Your task to perform on an android device: change your default location settings in chrome Image 0: 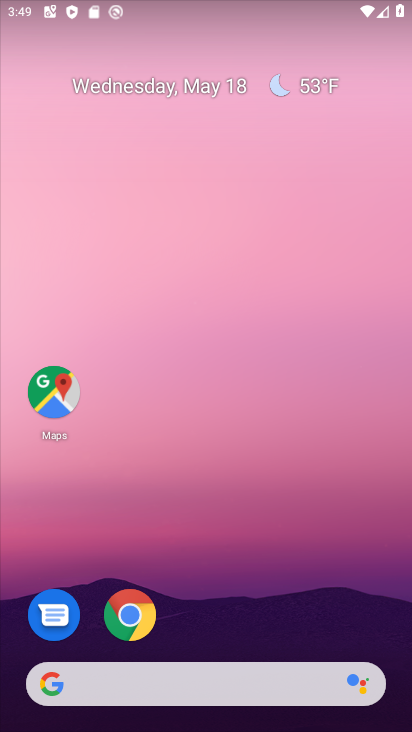
Step 0: click (122, 617)
Your task to perform on an android device: change your default location settings in chrome Image 1: 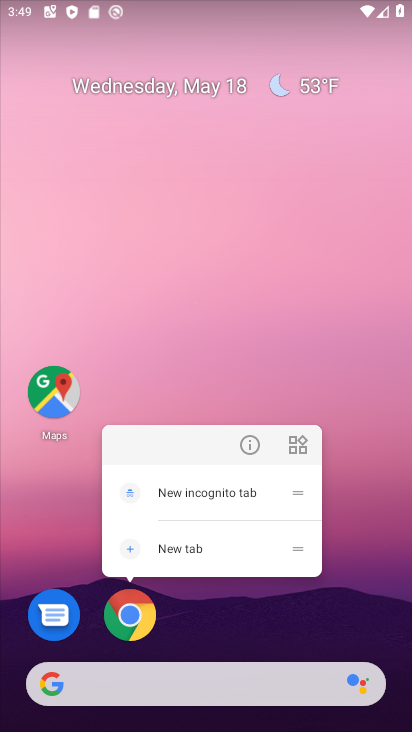
Step 1: click (125, 615)
Your task to perform on an android device: change your default location settings in chrome Image 2: 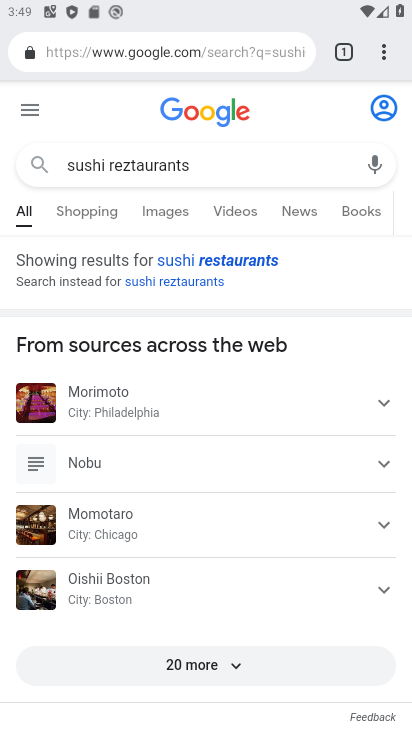
Step 2: drag from (390, 49) to (194, 577)
Your task to perform on an android device: change your default location settings in chrome Image 3: 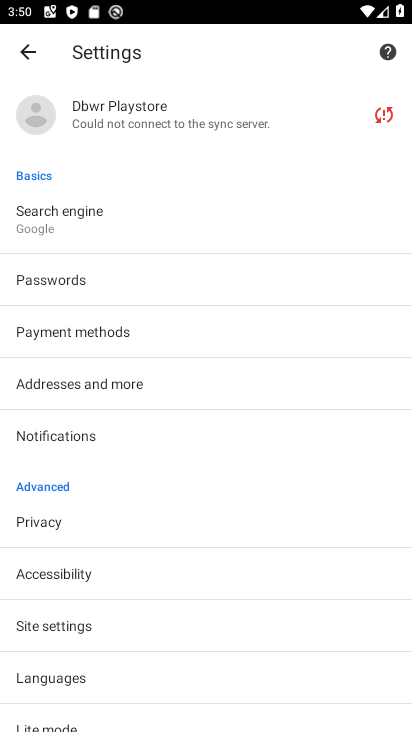
Step 3: drag from (177, 656) to (300, 368)
Your task to perform on an android device: change your default location settings in chrome Image 4: 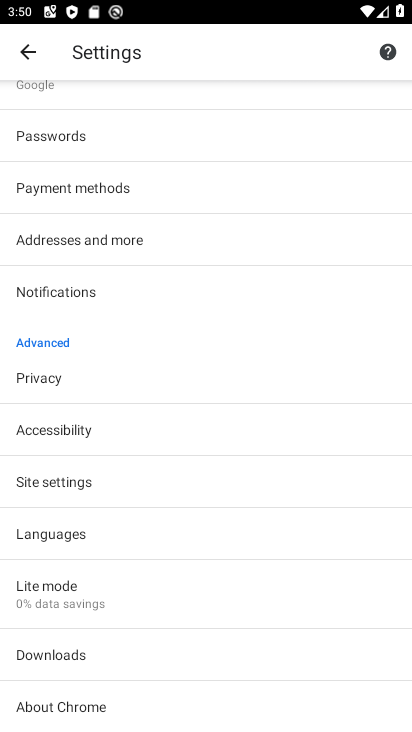
Step 4: click (100, 475)
Your task to perform on an android device: change your default location settings in chrome Image 5: 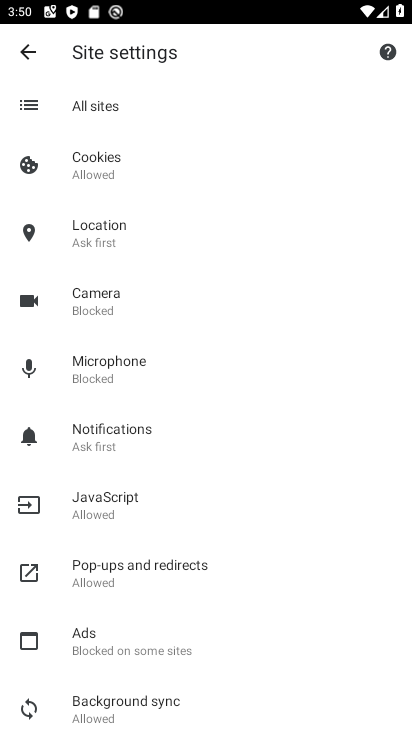
Step 5: drag from (139, 603) to (244, 499)
Your task to perform on an android device: change your default location settings in chrome Image 6: 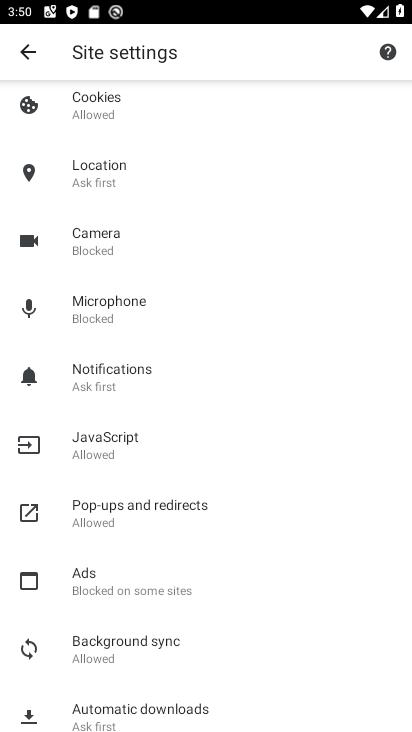
Step 6: click (85, 178)
Your task to perform on an android device: change your default location settings in chrome Image 7: 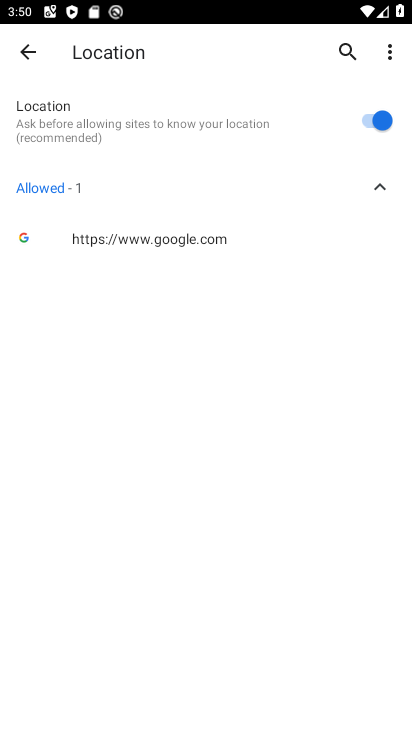
Step 7: click (383, 124)
Your task to perform on an android device: change your default location settings in chrome Image 8: 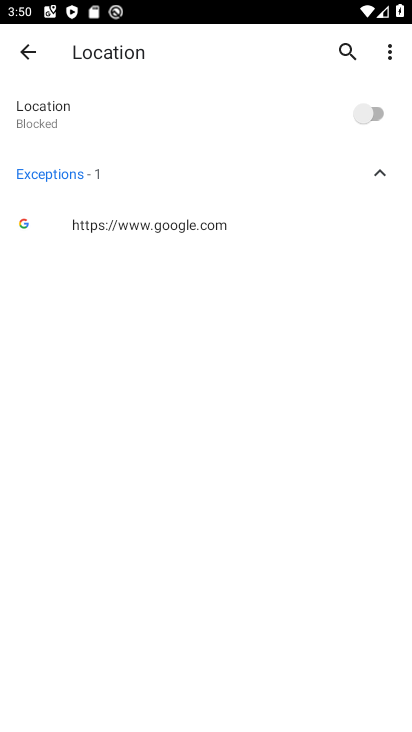
Step 8: task complete